Your task to perform on an android device: set default search engine in the chrome app Image 0: 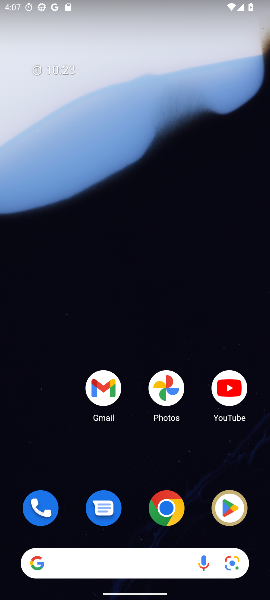
Step 0: drag from (150, 536) to (182, 237)
Your task to perform on an android device: set default search engine in the chrome app Image 1: 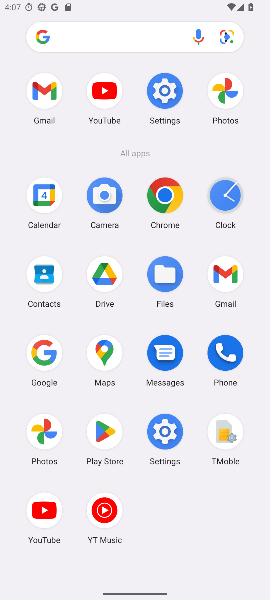
Step 1: click (163, 194)
Your task to perform on an android device: set default search engine in the chrome app Image 2: 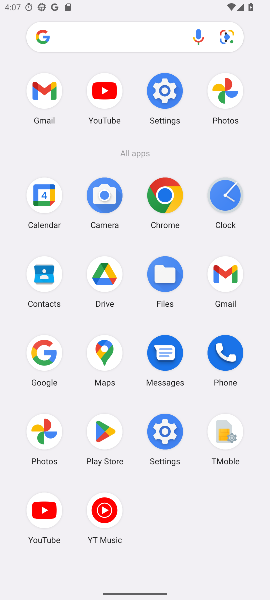
Step 2: click (163, 193)
Your task to perform on an android device: set default search engine in the chrome app Image 3: 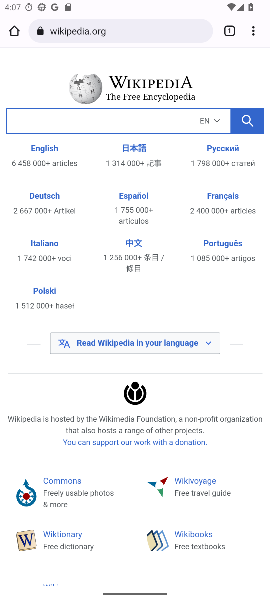
Step 3: drag from (140, 442) to (147, 193)
Your task to perform on an android device: set default search engine in the chrome app Image 4: 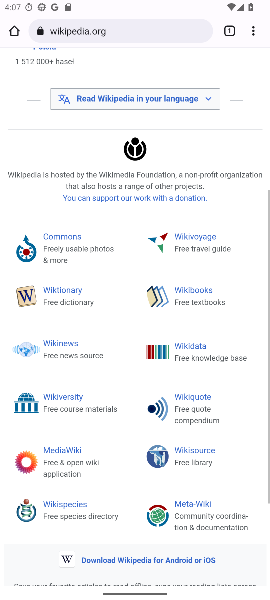
Step 4: drag from (147, 176) to (131, 498)
Your task to perform on an android device: set default search engine in the chrome app Image 5: 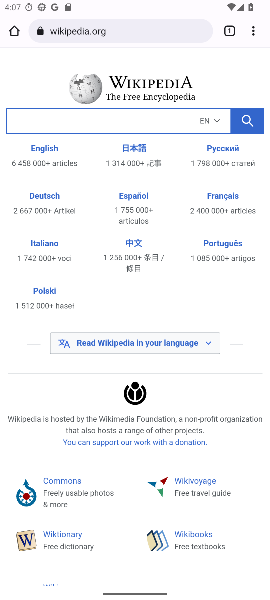
Step 5: drag from (252, 26) to (164, 393)
Your task to perform on an android device: set default search engine in the chrome app Image 6: 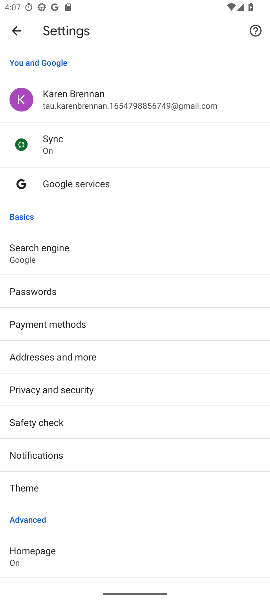
Step 6: drag from (88, 555) to (156, 149)
Your task to perform on an android device: set default search engine in the chrome app Image 7: 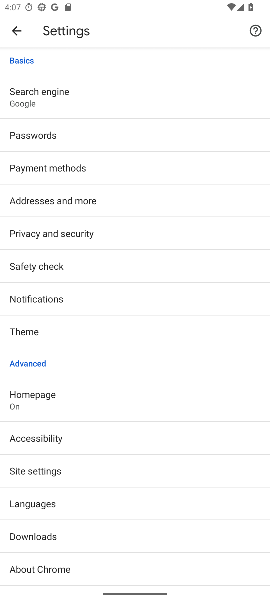
Step 7: click (111, 102)
Your task to perform on an android device: set default search engine in the chrome app Image 8: 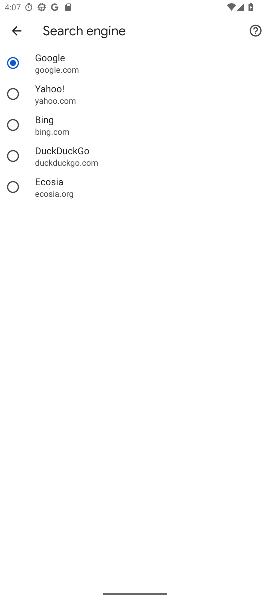
Step 8: task complete